Your task to perform on an android device: Open the calendar app, open the side menu, and click the "Day" option Image 0: 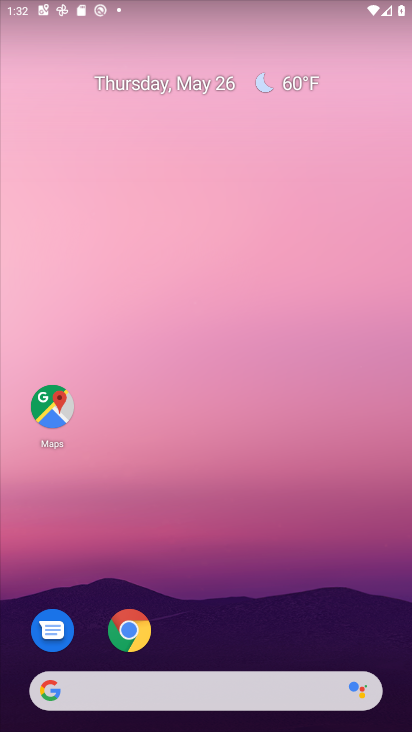
Step 0: drag from (290, 425) to (309, 98)
Your task to perform on an android device: Open the calendar app, open the side menu, and click the "Day" option Image 1: 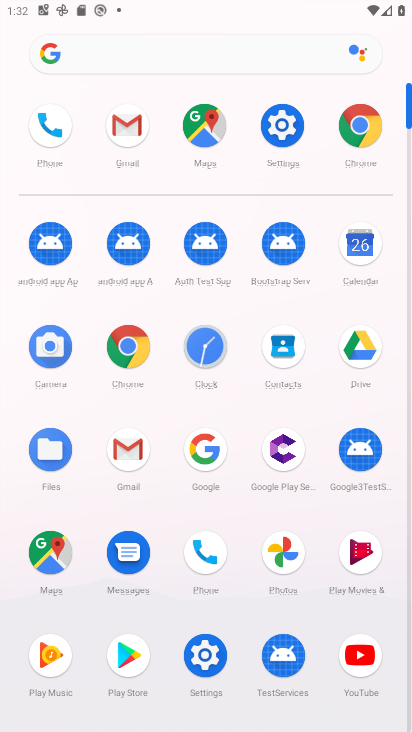
Step 1: click (358, 256)
Your task to perform on an android device: Open the calendar app, open the side menu, and click the "Day" option Image 2: 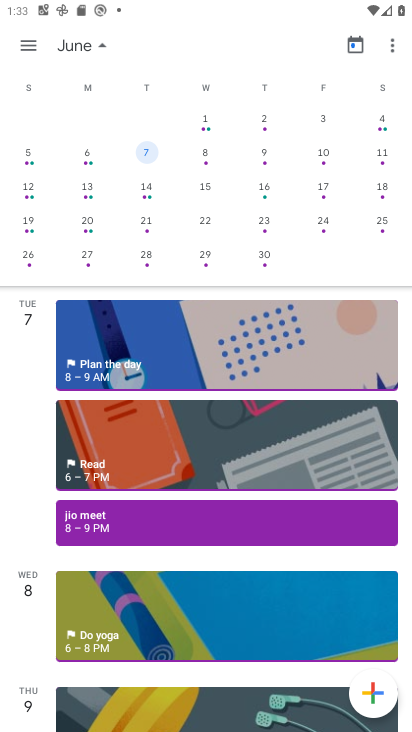
Step 2: click (32, 48)
Your task to perform on an android device: Open the calendar app, open the side menu, and click the "Day" option Image 3: 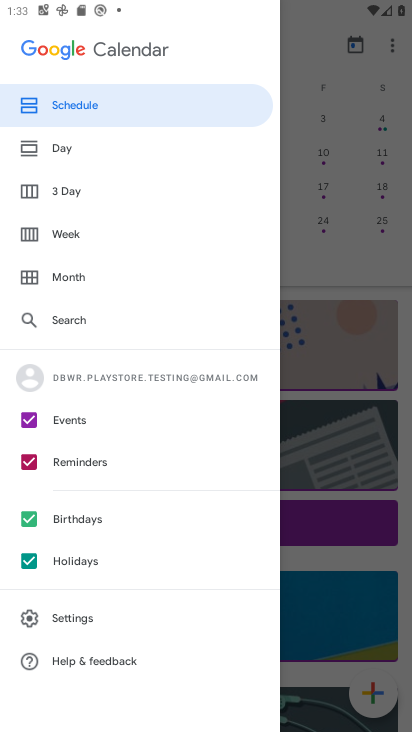
Step 3: click (57, 147)
Your task to perform on an android device: Open the calendar app, open the side menu, and click the "Day" option Image 4: 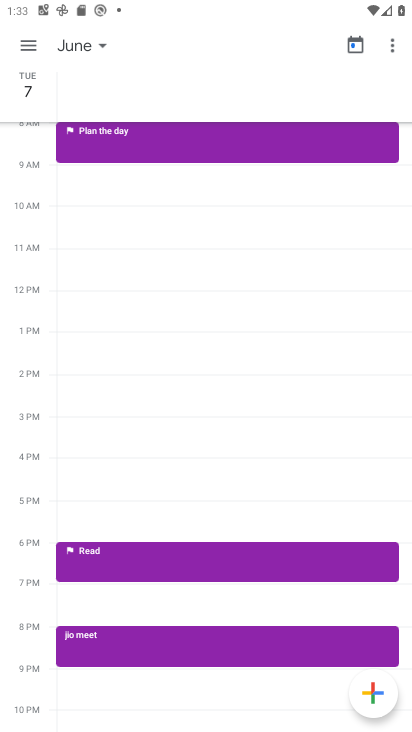
Step 4: click (95, 45)
Your task to perform on an android device: Open the calendar app, open the side menu, and click the "Day" option Image 5: 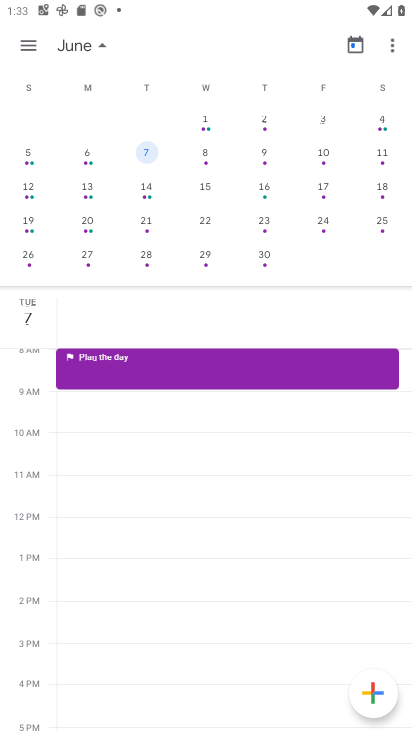
Step 5: click (30, 40)
Your task to perform on an android device: Open the calendar app, open the side menu, and click the "Day" option Image 6: 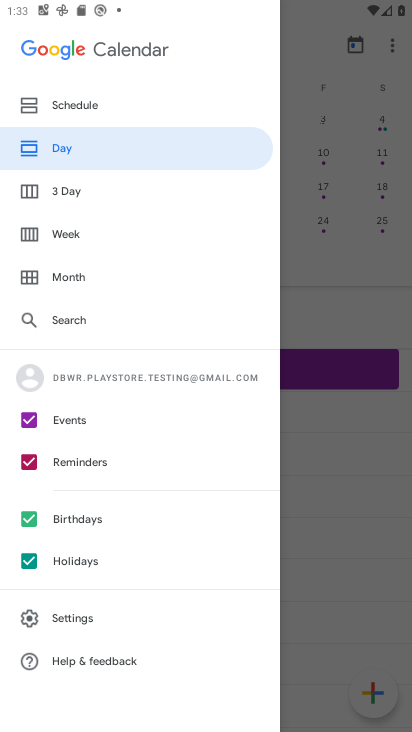
Step 6: task complete